Your task to perform on an android device: turn on javascript in the chrome app Image 0: 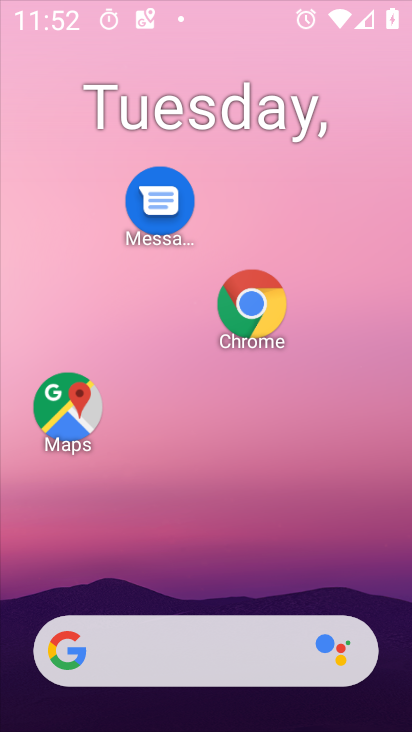
Step 0: drag from (208, 321) to (229, 190)
Your task to perform on an android device: turn on javascript in the chrome app Image 1: 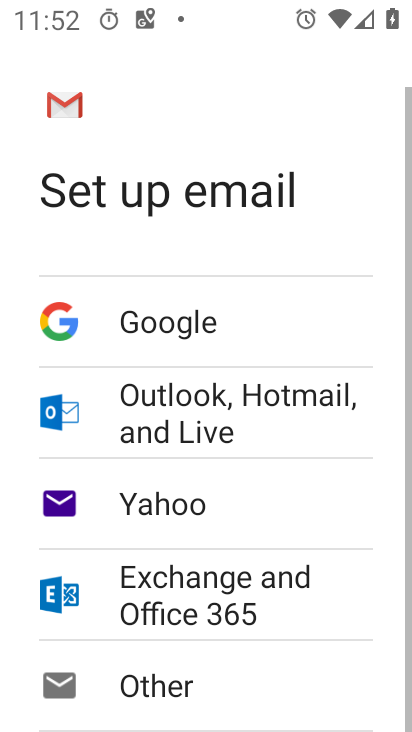
Step 1: press home button
Your task to perform on an android device: turn on javascript in the chrome app Image 2: 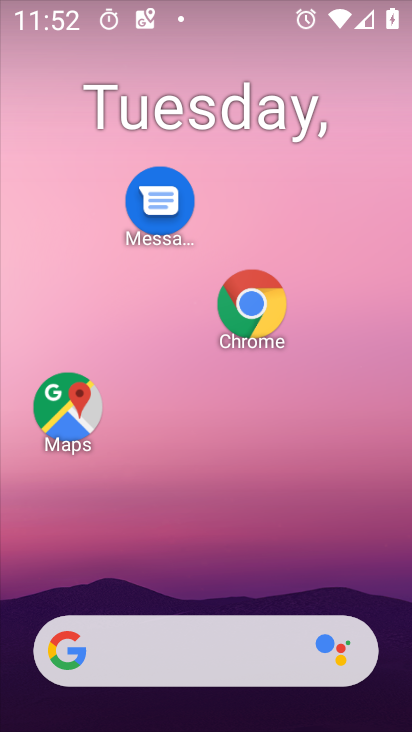
Step 2: drag from (217, 519) to (247, 258)
Your task to perform on an android device: turn on javascript in the chrome app Image 3: 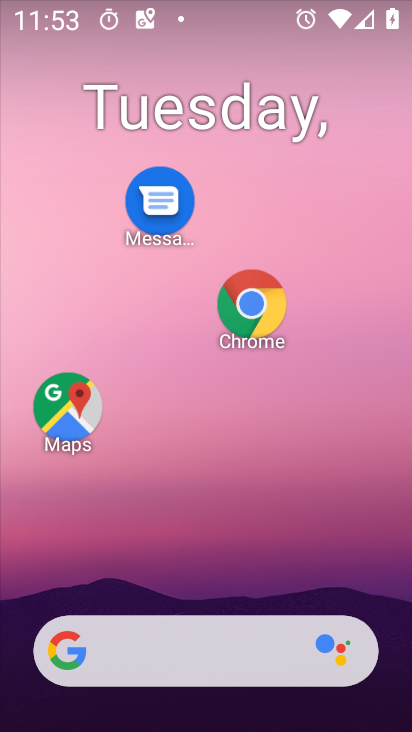
Step 3: drag from (223, 501) to (326, 40)
Your task to perform on an android device: turn on javascript in the chrome app Image 4: 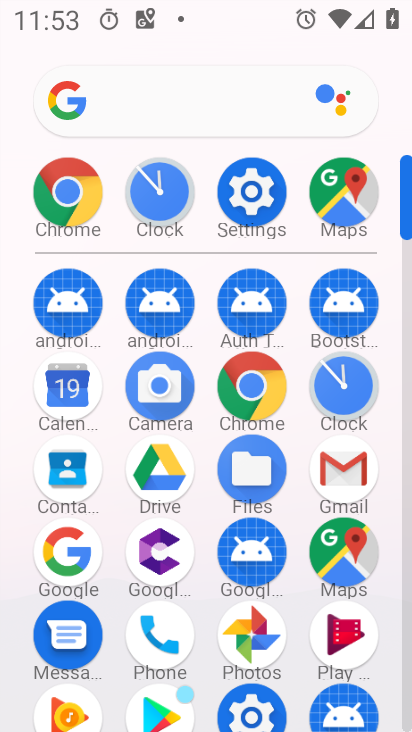
Step 4: click (67, 178)
Your task to perform on an android device: turn on javascript in the chrome app Image 5: 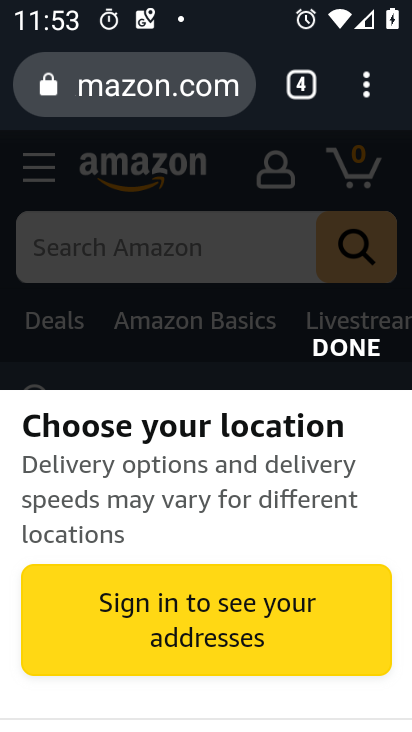
Step 5: click (350, 75)
Your task to perform on an android device: turn on javascript in the chrome app Image 6: 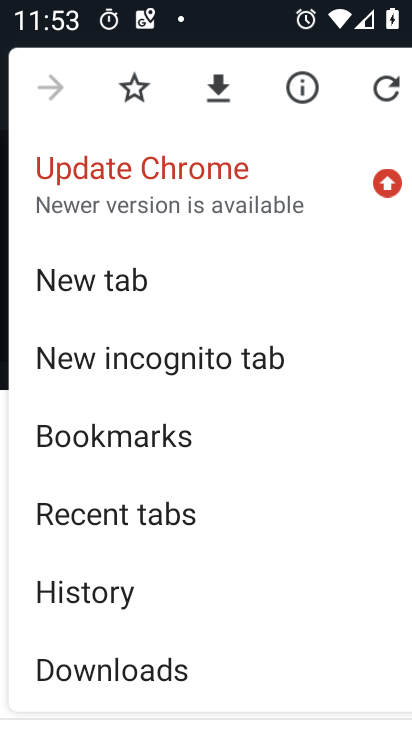
Step 6: drag from (204, 643) to (249, 181)
Your task to perform on an android device: turn on javascript in the chrome app Image 7: 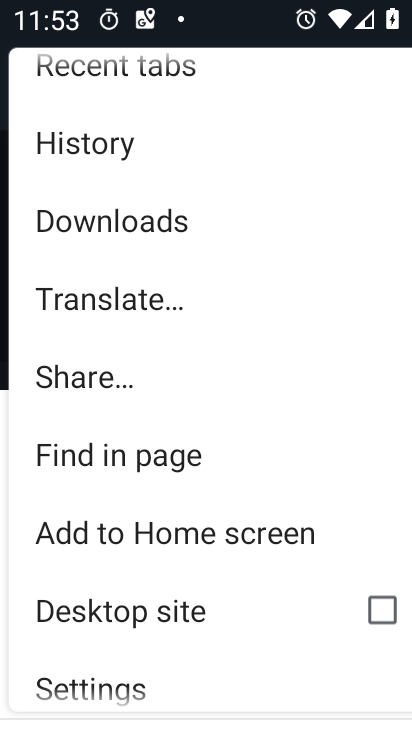
Step 7: drag from (114, 566) to (222, 170)
Your task to perform on an android device: turn on javascript in the chrome app Image 8: 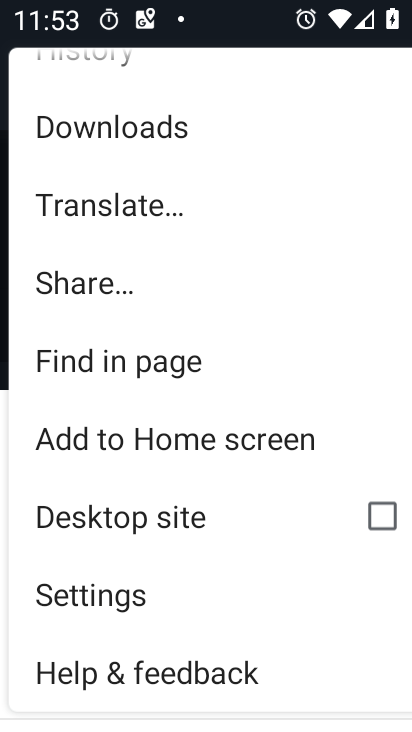
Step 8: click (54, 592)
Your task to perform on an android device: turn on javascript in the chrome app Image 9: 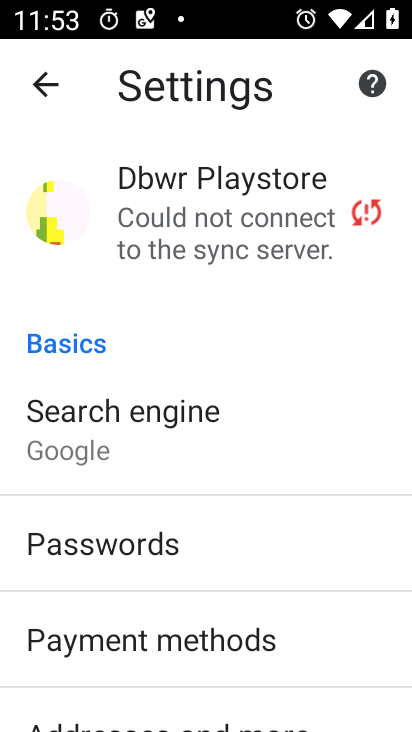
Step 9: drag from (215, 650) to (316, 135)
Your task to perform on an android device: turn on javascript in the chrome app Image 10: 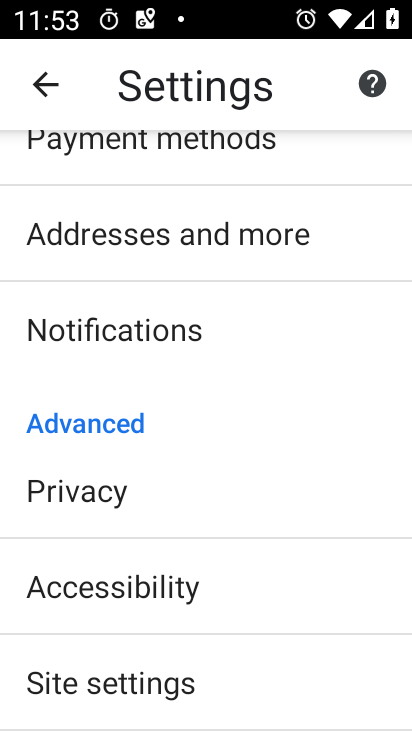
Step 10: drag from (220, 568) to (284, 157)
Your task to perform on an android device: turn on javascript in the chrome app Image 11: 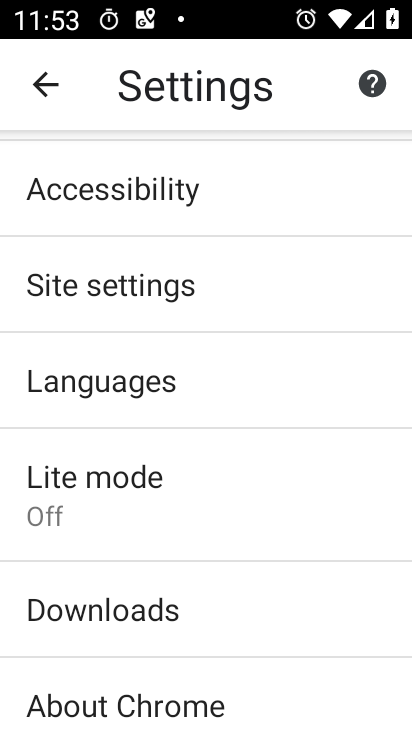
Step 11: click (161, 283)
Your task to perform on an android device: turn on javascript in the chrome app Image 12: 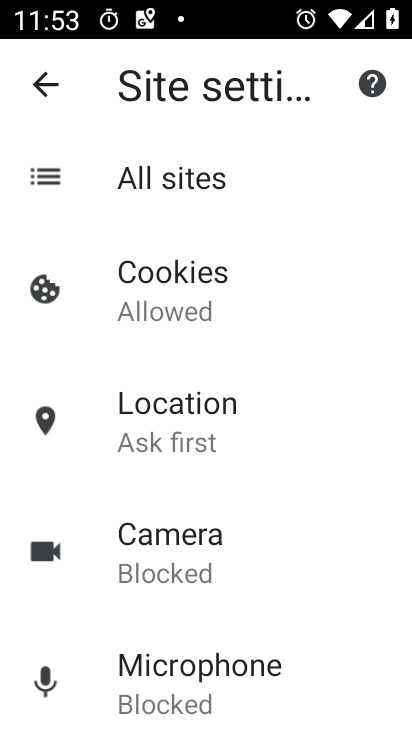
Step 12: drag from (180, 536) to (254, 133)
Your task to perform on an android device: turn on javascript in the chrome app Image 13: 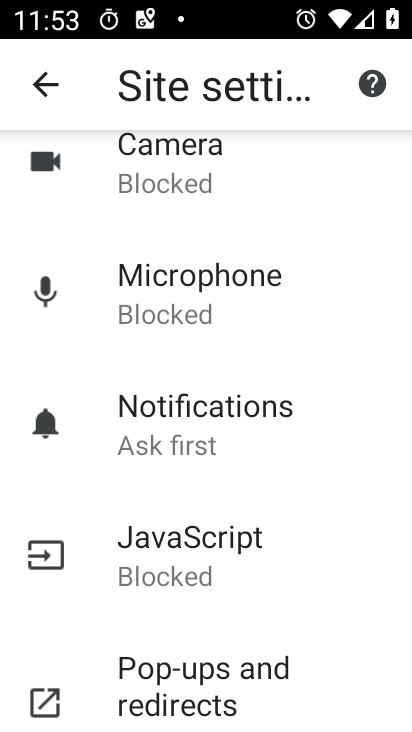
Step 13: click (210, 557)
Your task to perform on an android device: turn on javascript in the chrome app Image 14: 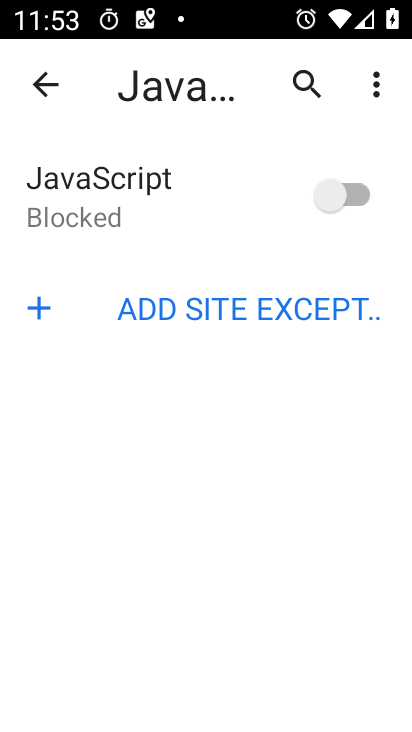
Step 14: click (337, 197)
Your task to perform on an android device: turn on javascript in the chrome app Image 15: 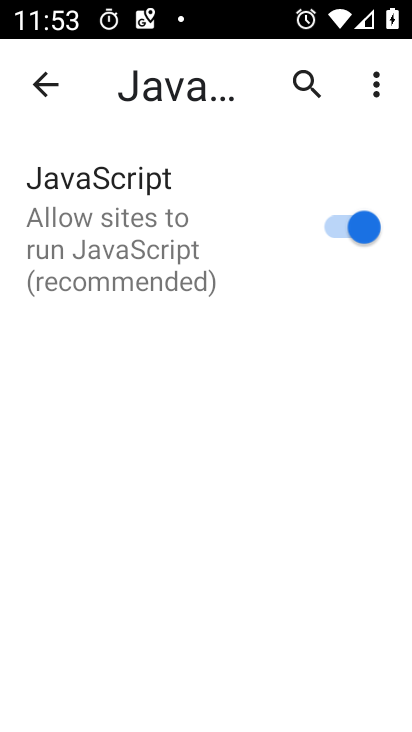
Step 15: task complete